Your task to perform on an android device: Do I have any events today? Image 0: 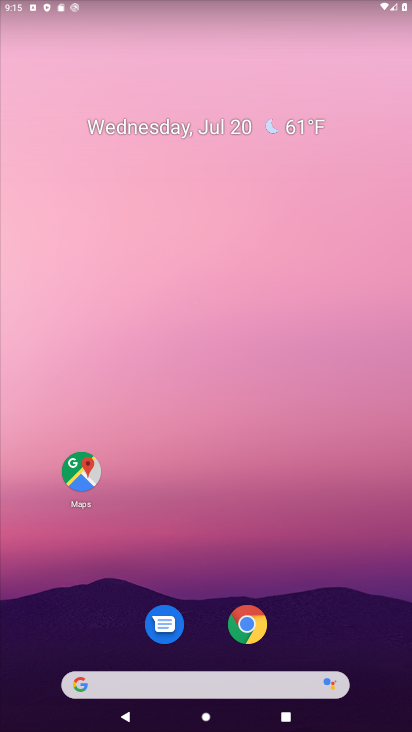
Step 0: drag from (213, 587) to (211, 88)
Your task to perform on an android device: Do I have any events today? Image 1: 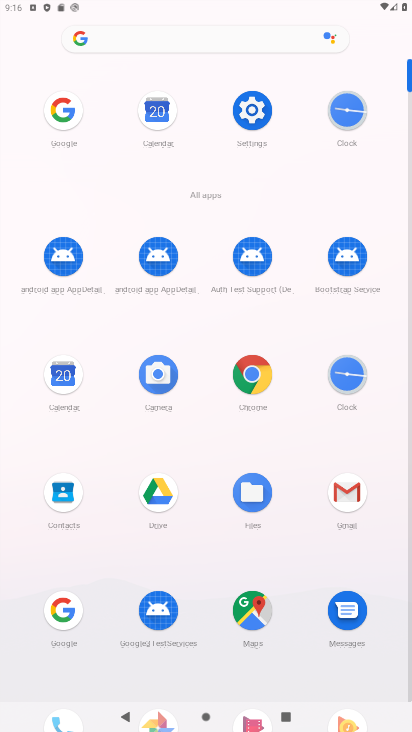
Step 1: click (163, 119)
Your task to perform on an android device: Do I have any events today? Image 2: 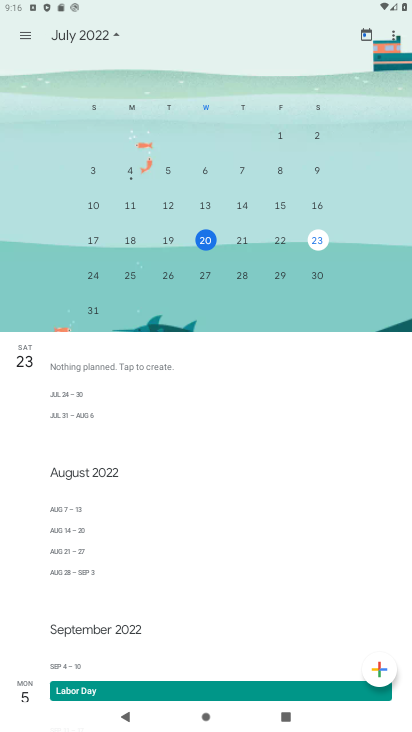
Step 2: click (213, 248)
Your task to perform on an android device: Do I have any events today? Image 3: 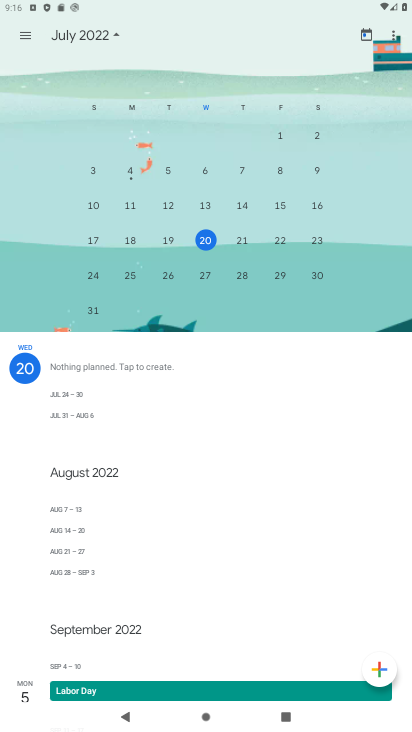
Step 3: task complete